Your task to perform on an android device: Open the phone app and click the voicemail tab. Image 0: 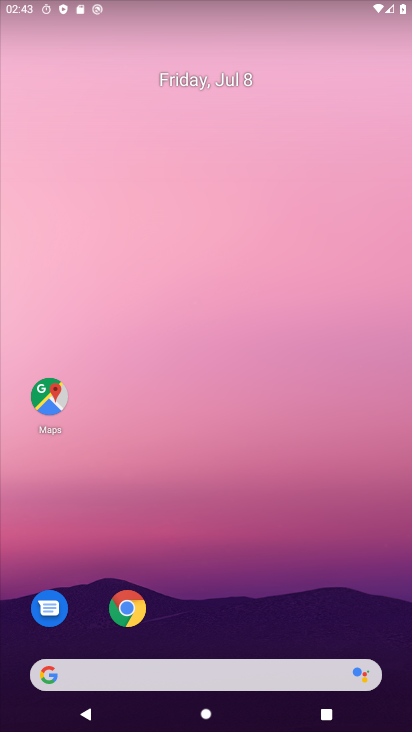
Step 0: drag from (207, 610) to (201, 108)
Your task to perform on an android device: Open the phone app and click the voicemail tab. Image 1: 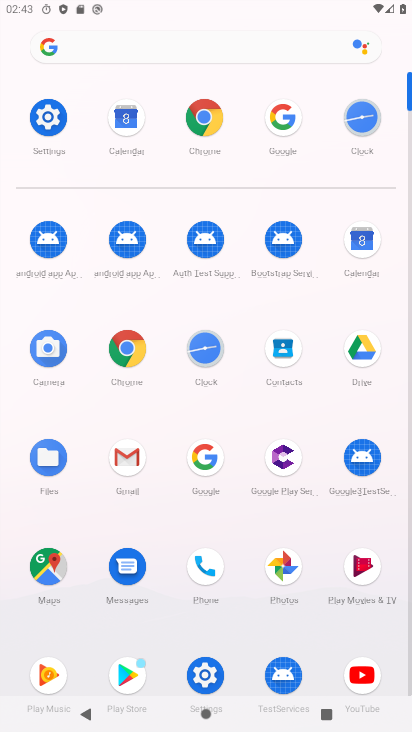
Step 1: click (208, 565)
Your task to perform on an android device: Open the phone app and click the voicemail tab. Image 2: 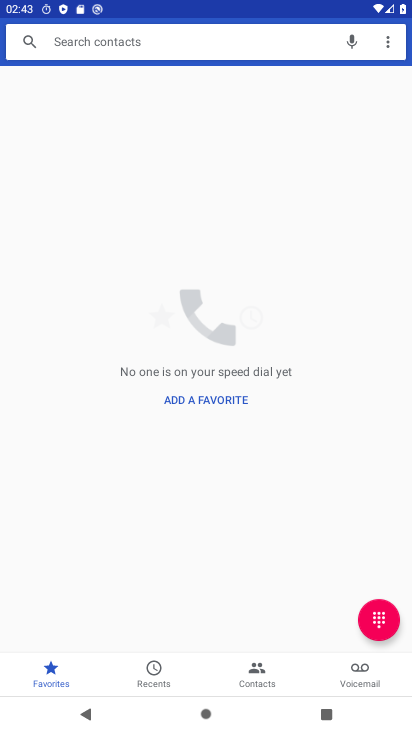
Step 2: click (353, 674)
Your task to perform on an android device: Open the phone app and click the voicemail tab. Image 3: 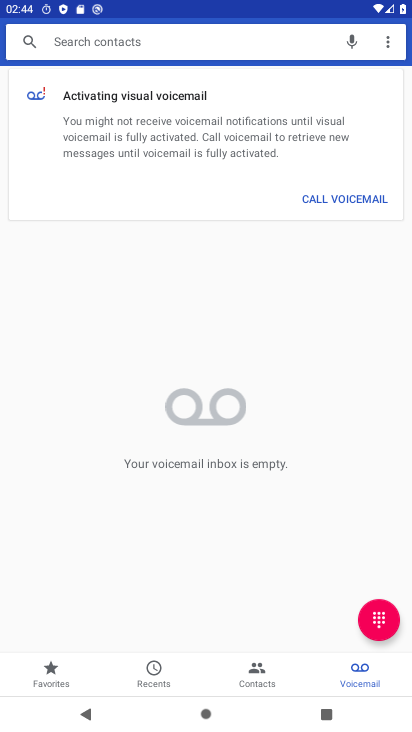
Step 3: task complete